Your task to perform on an android device: Show me recent news Image 0: 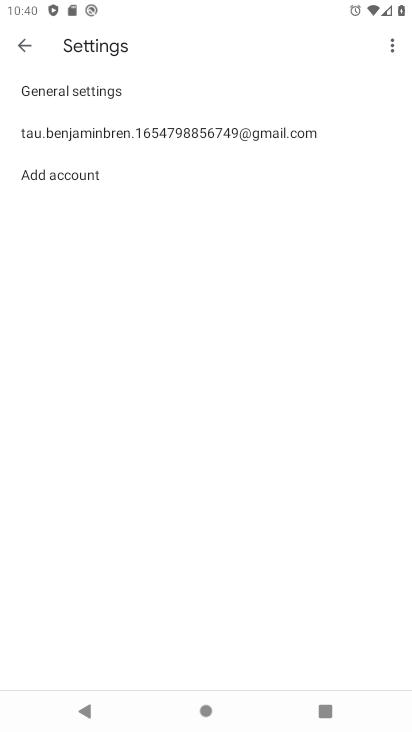
Step 0: press home button
Your task to perform on an android device: Show me recent news Image 1: 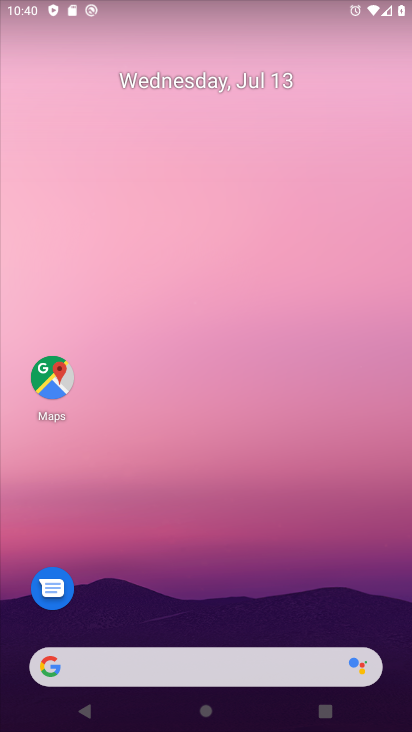
Step 1: click (225, 671)
Your task to perform on an android device: Show me recent news Image 2: 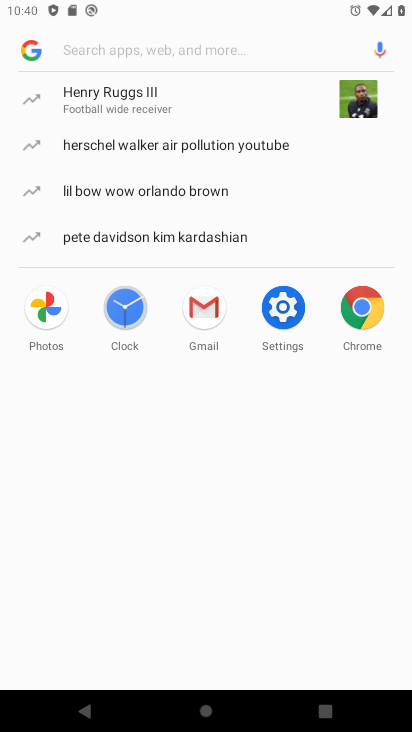
Step 2: type "recent news"
Your task to perform on an android device: Show me recent news Image 3: 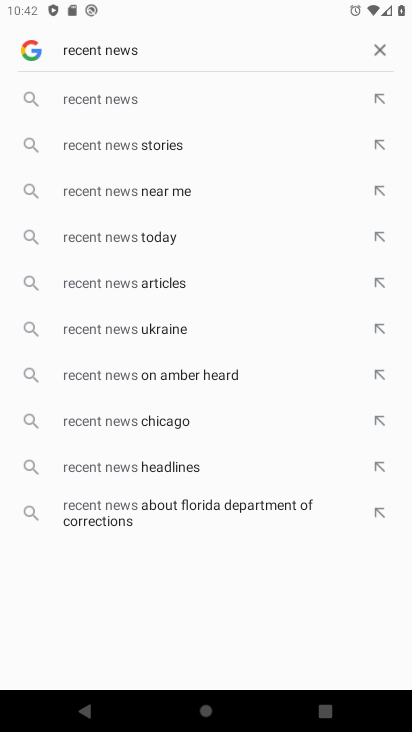
Step 3: click (88, 112)
Your task to perform on an android device: Show me recent news Image 4: 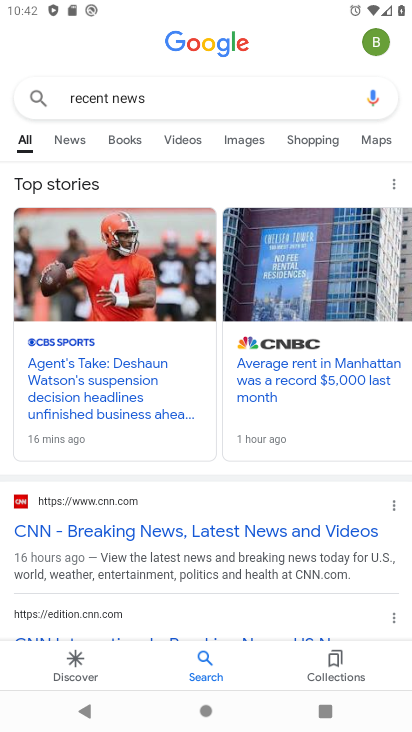
Step 4: task complete